Your task to perform on an android device: turn on showing notifications on the lock screen Image 0: 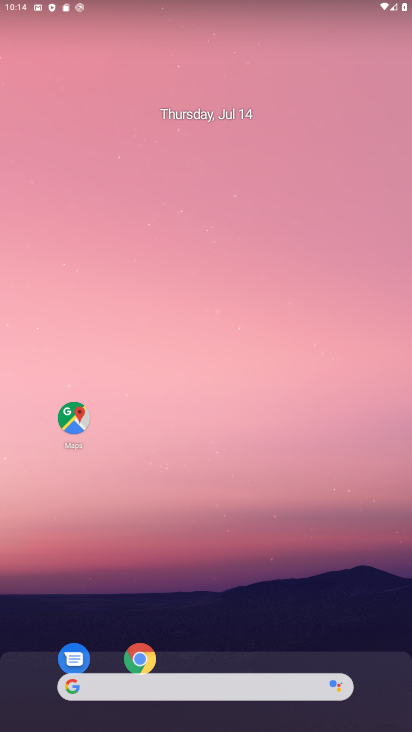
Step 0: drag from (226, 677) to (335, 52)
Your task to perform on an android device: turn on showing notifications on the lock screen Image 1: 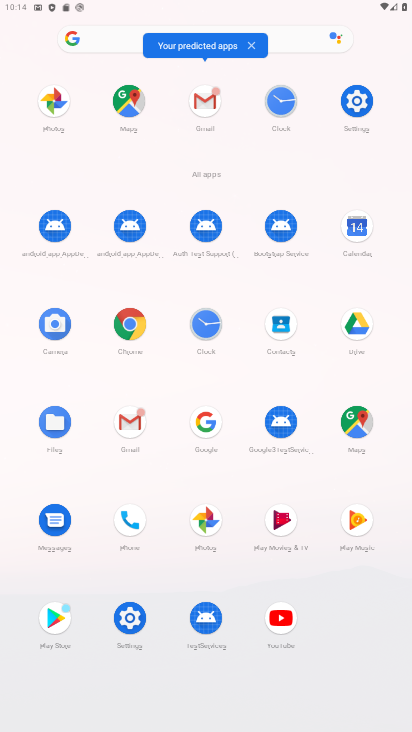
Step 1: click (134, 621)
Your task to perform on an android device: turn on showing notifications on the lock screen Image 2: 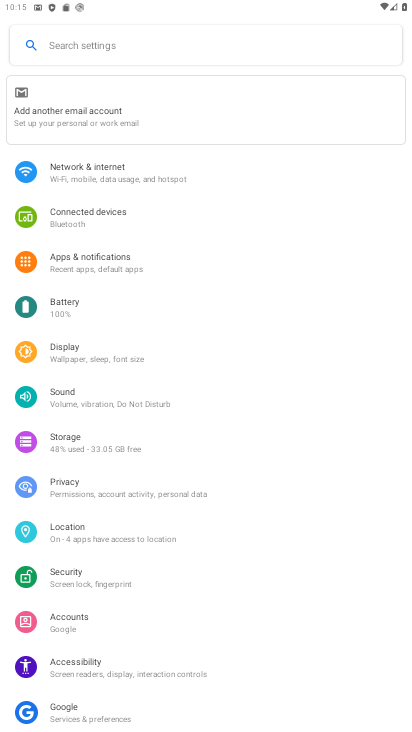
Step 2: click (115, 276)
Your task to perform on an android device: turn on showing notifications on the lock screen Image 3: 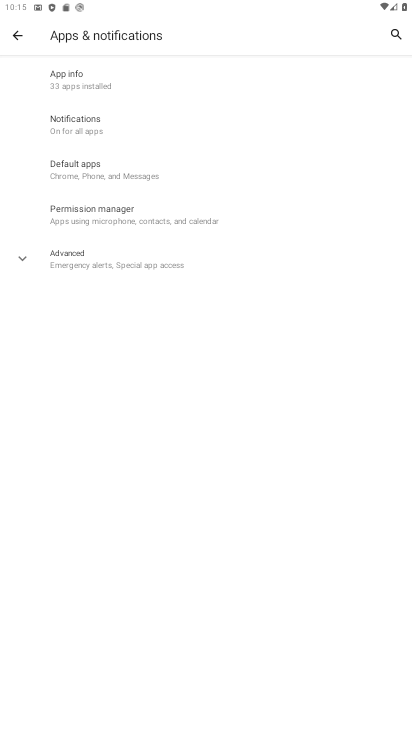
Step 3: click (131, 117)
Your task to perform on an android device: turn on showing notifications on the lock screen Image 4: 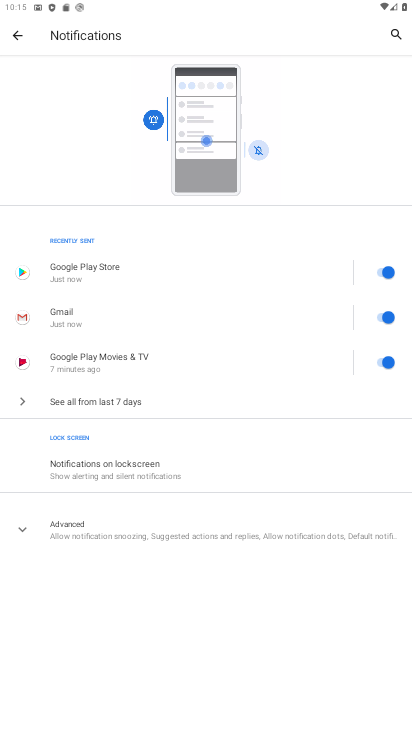
Step 4: click (121, 471)
Your task to perform on an android device: turn on showing notifications on the lock screen Image 5: 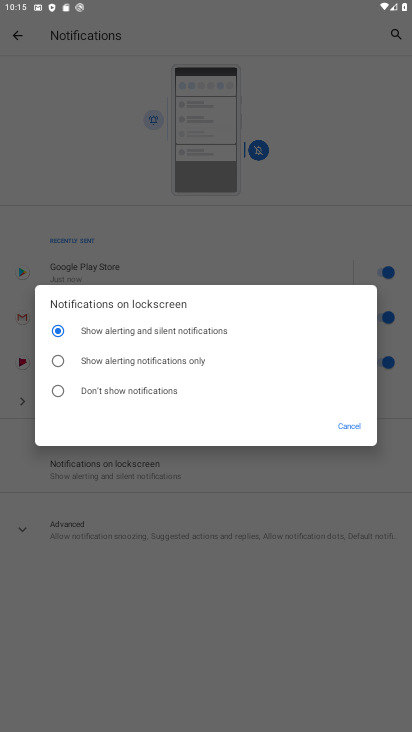
Step 5: task complete